Your task to perform on an android device: toggle priority inbox in the gmail app Image 0: 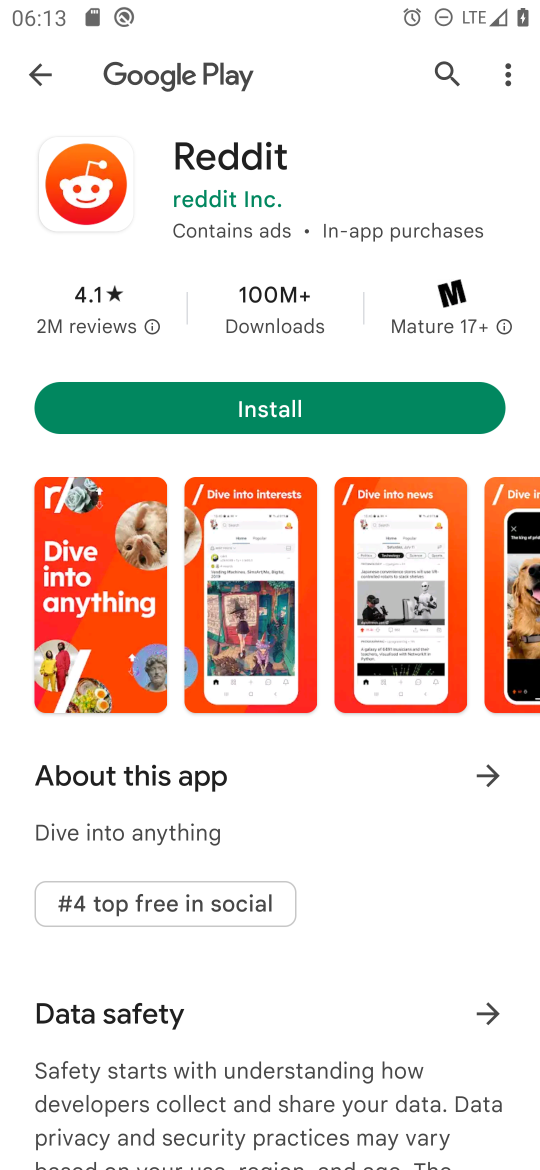
Step 0: press home button
Your task to perform on an android device: toggle priority inbox in the gmail app Image 1: 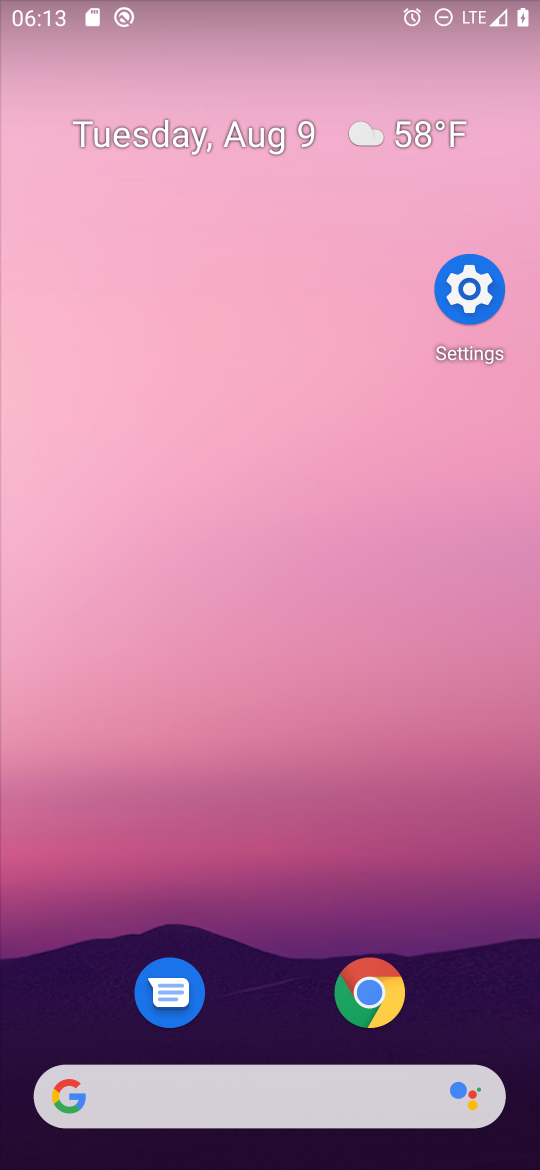
Step 1: drag from (353, 1086) to (399, 568)
Your task to perform on an android device: toggle priority inbox in the gmail app Image 2: 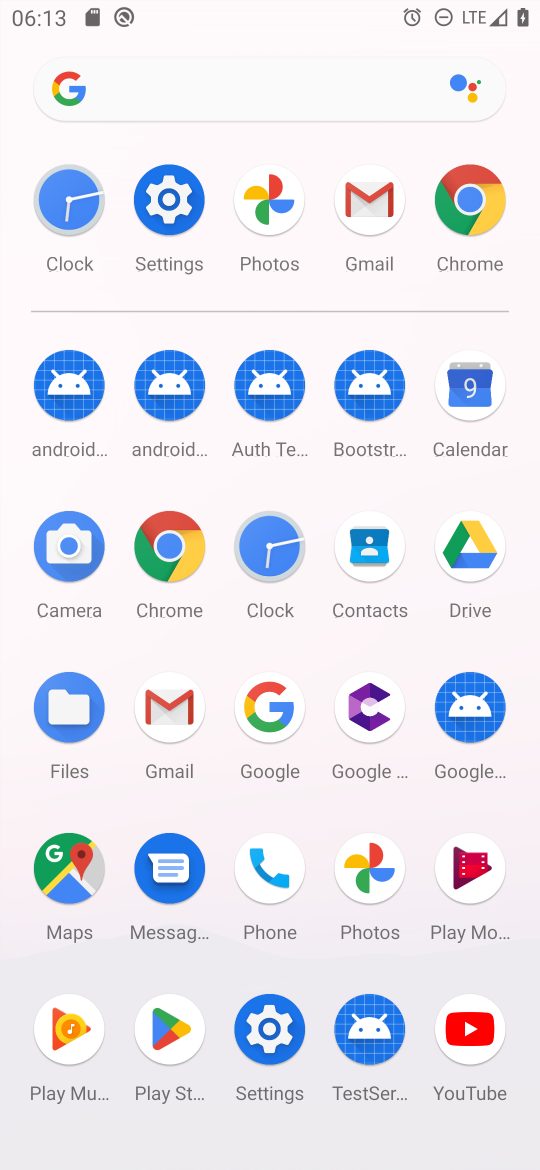
Step 2: click (155, 723)
Your task to perform on an android device: toggle priority inbox in the gmail app Image 3: 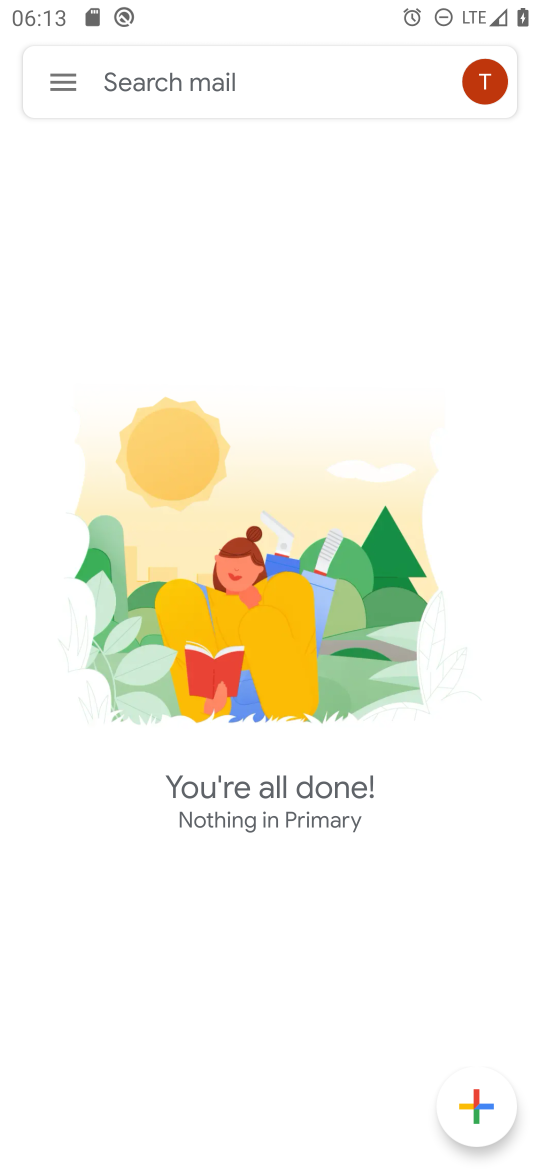
Step 3: click (61, 74)
Your task to perform on an android device: toggle priority inbox in the gmail app Image 4: 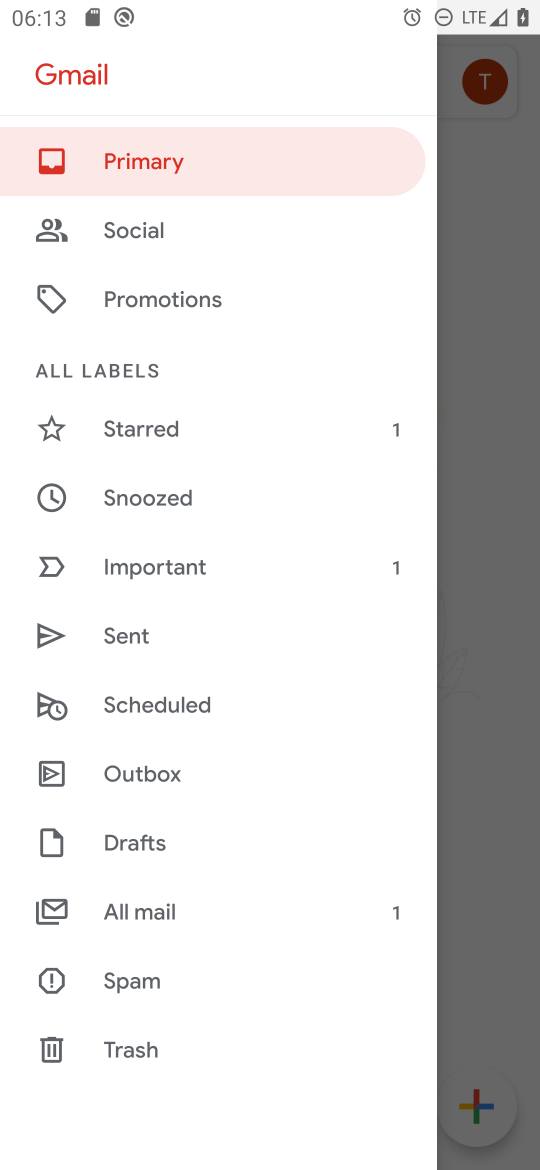
Step 4: drag from (265, 1036) to (156, 819)
Your task to perform on an android device: toggle priority inbox in the gmail app Image 5: 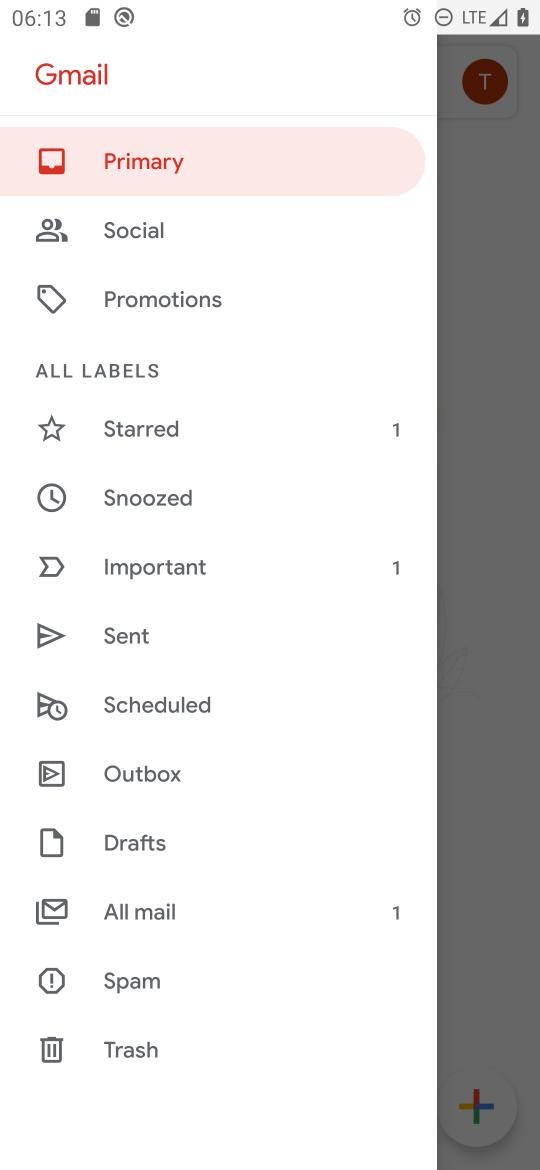
Step 5: drag from (314, 1039) to (355, 768)
Your task to perform on an android device: toggle priority inbox in the gmail app Image 6: 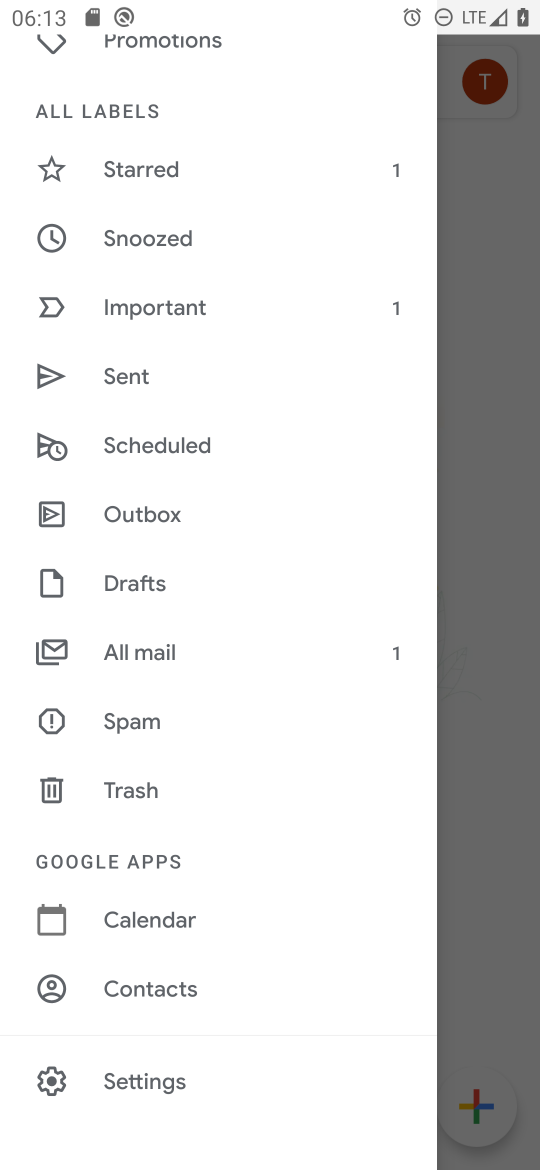
Step 6: click (160, 1075)
Your task to perform on an android device: toggle priority inbox in the gmail app Image 7: 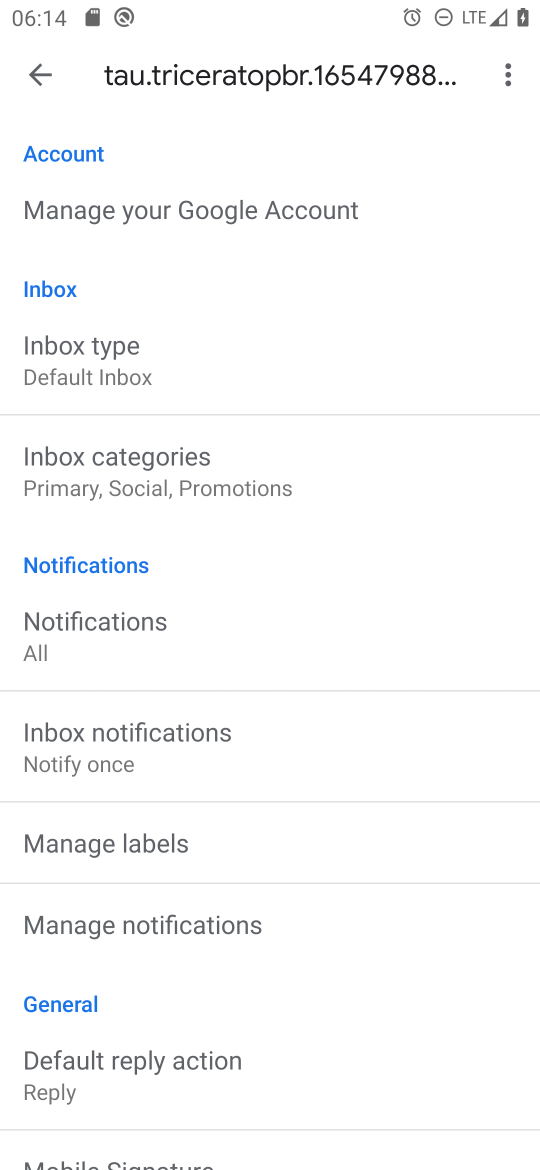
Step 7: click (135, 368)
Your task to perform on an android device: toggle priority inbox in the gmail app Image 8: 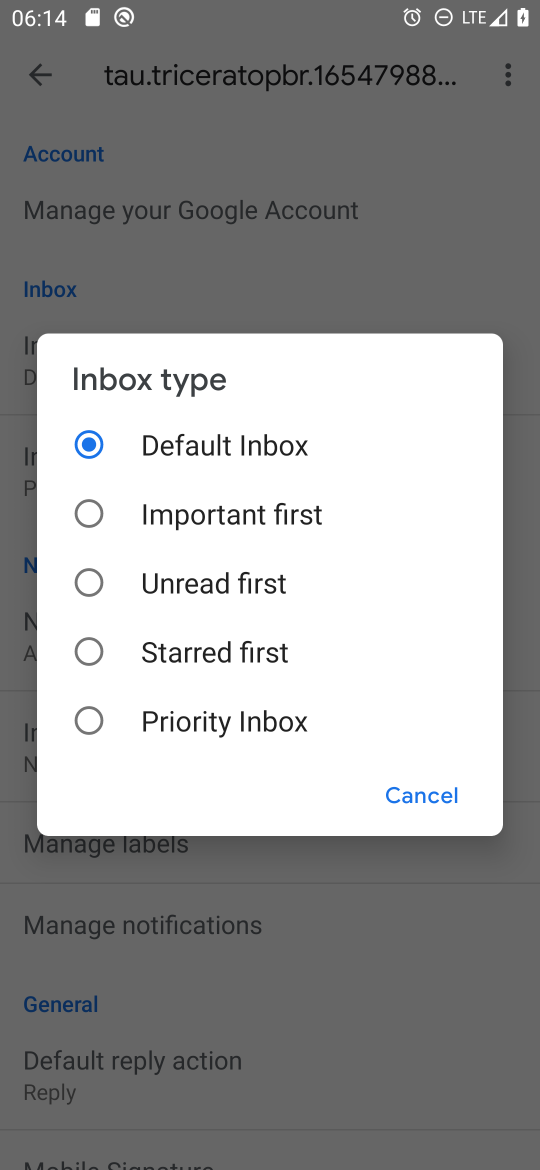
Step 8: click (90, 723)
Your task to perform on an android device: toggle priority inbox in the gmail app Image 9: 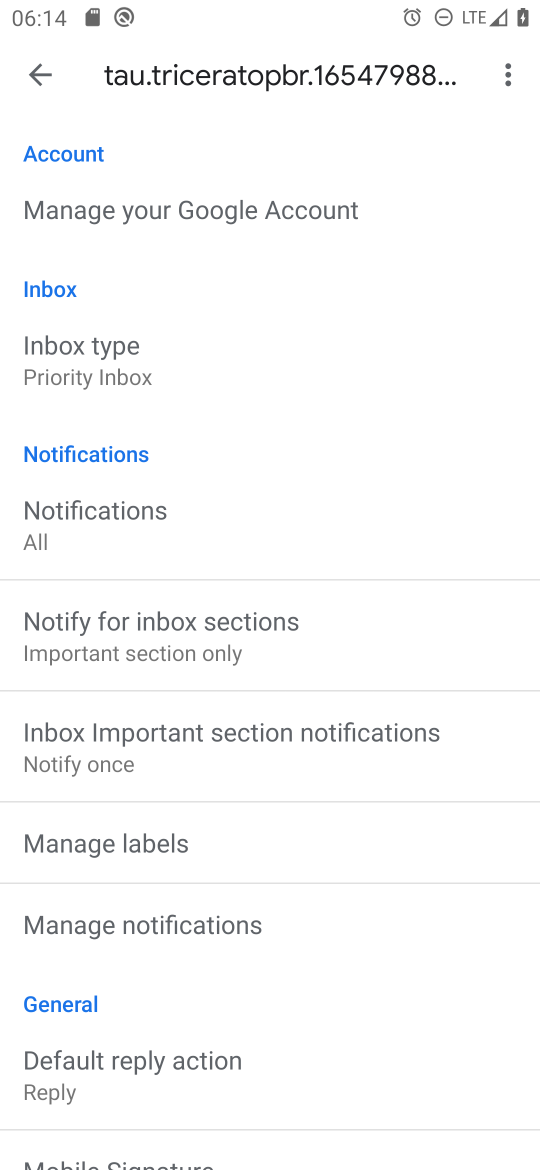
Step 9: task complete